Your task to perform on an android device: uninstall "Adobe Acrobat Reader" Image 0: 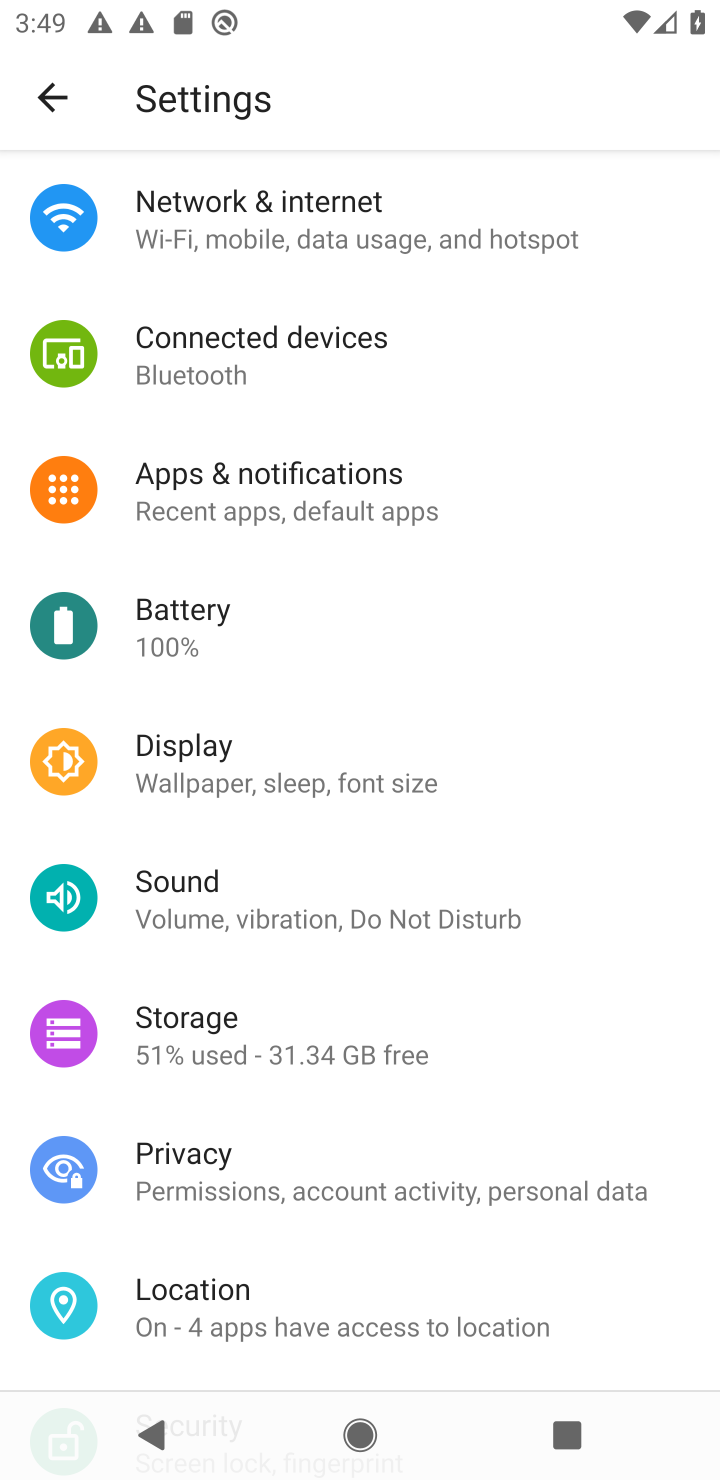
Step 0: press home button
Your task to perform on an android device: uninstall "Adobe Acrobat Reader" Image 1: 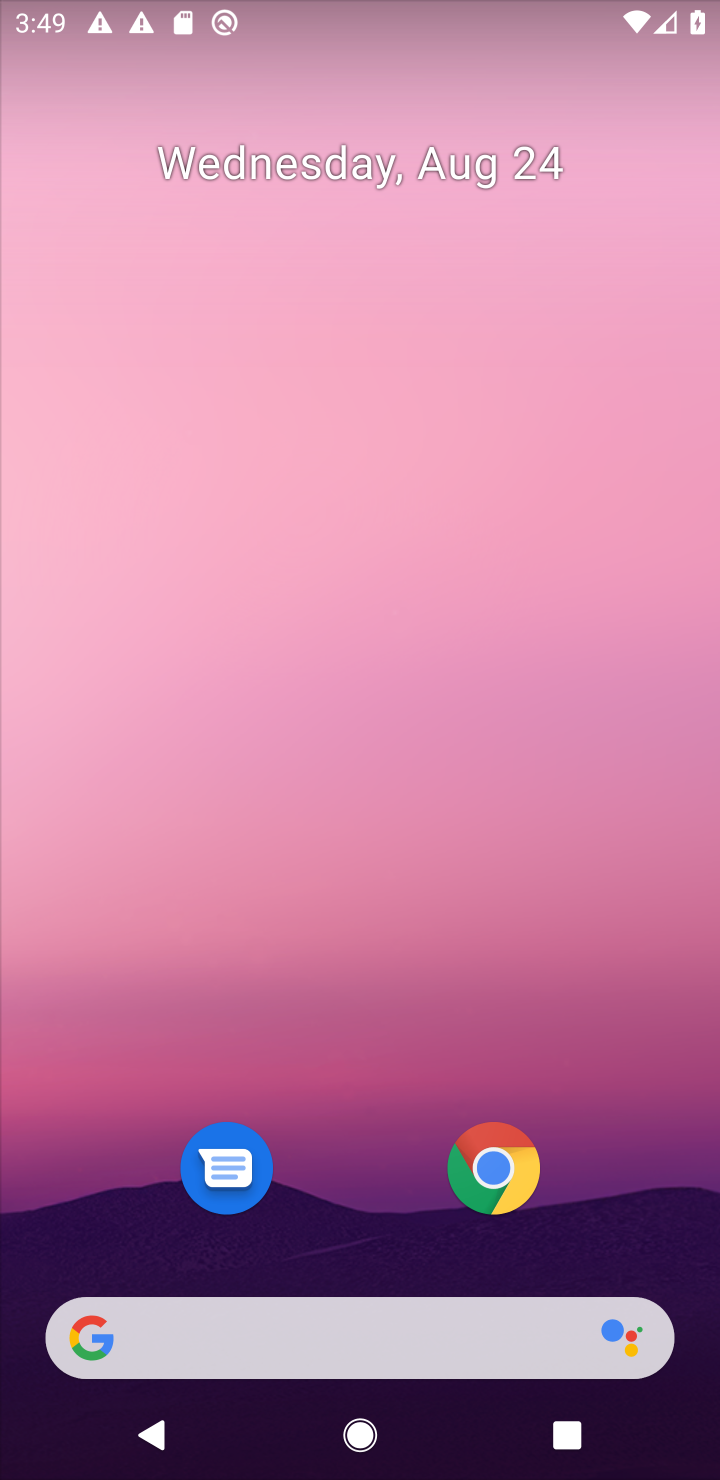
Step 1: drag from (622, 843) to (577, 174)
Your task to perform on an android device: uninstall "Adobe Acrobat Reader" Image 2: 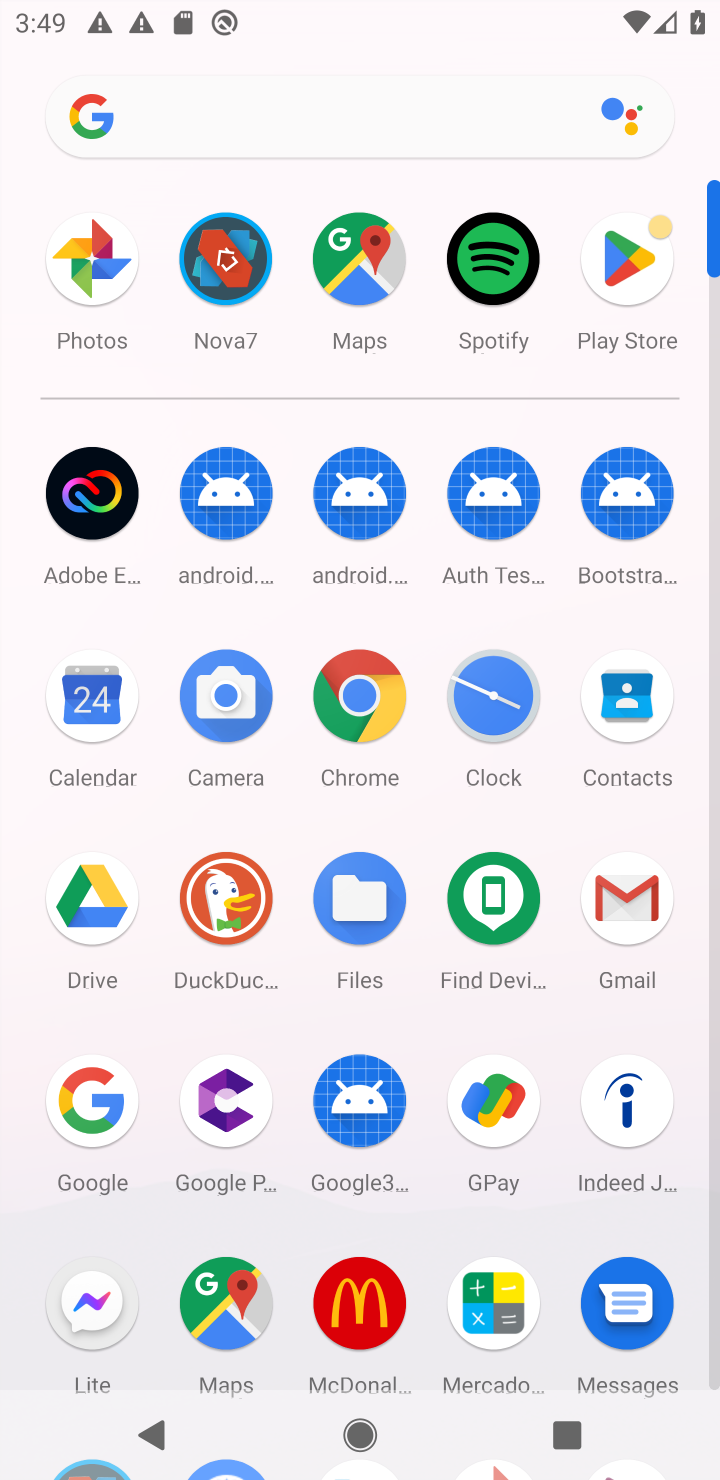
Step 2: click (622, 263)
Your task to perform on an android device: uninstall "Adobe Acrobat Reader" Image 3: 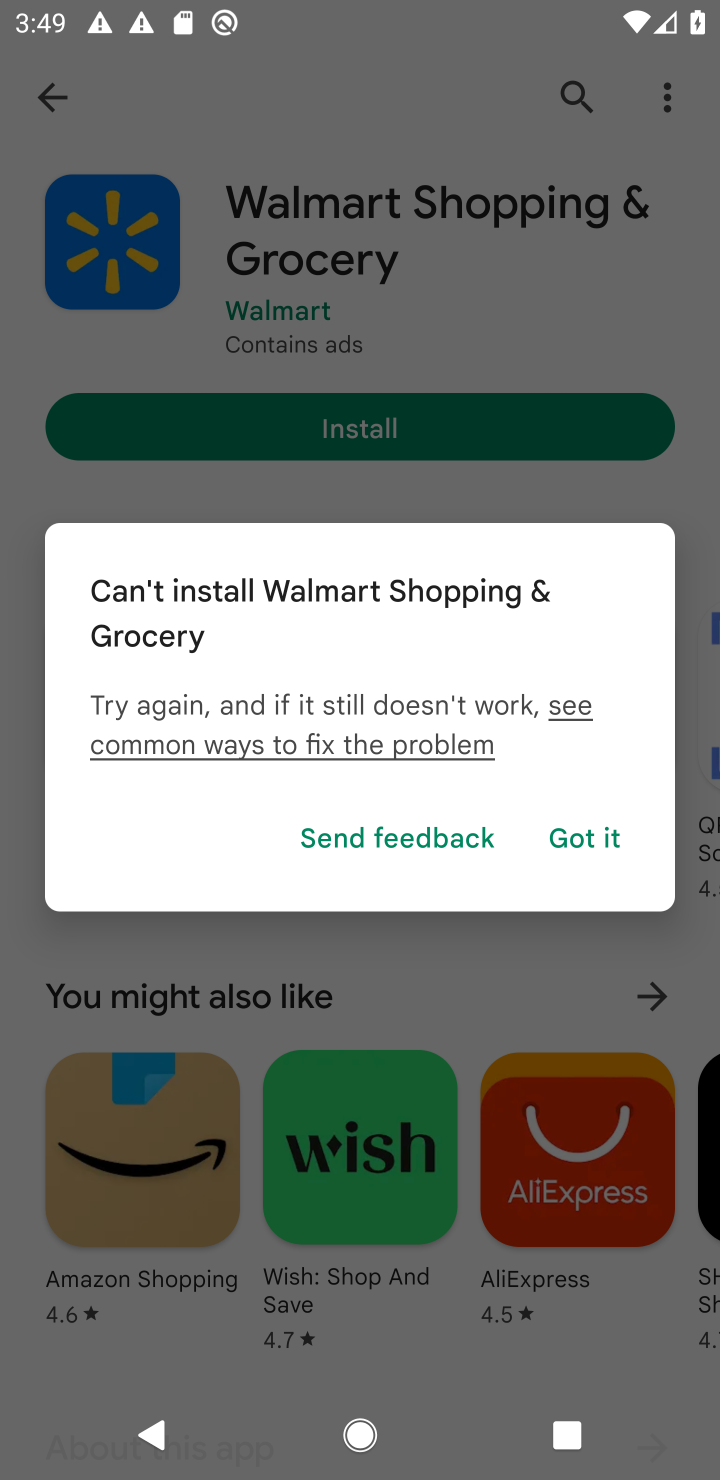
Step 3: click (597, 837)
Your task to perform on an android device: uninstall "Adobe Acrobat Reader" Image 4: 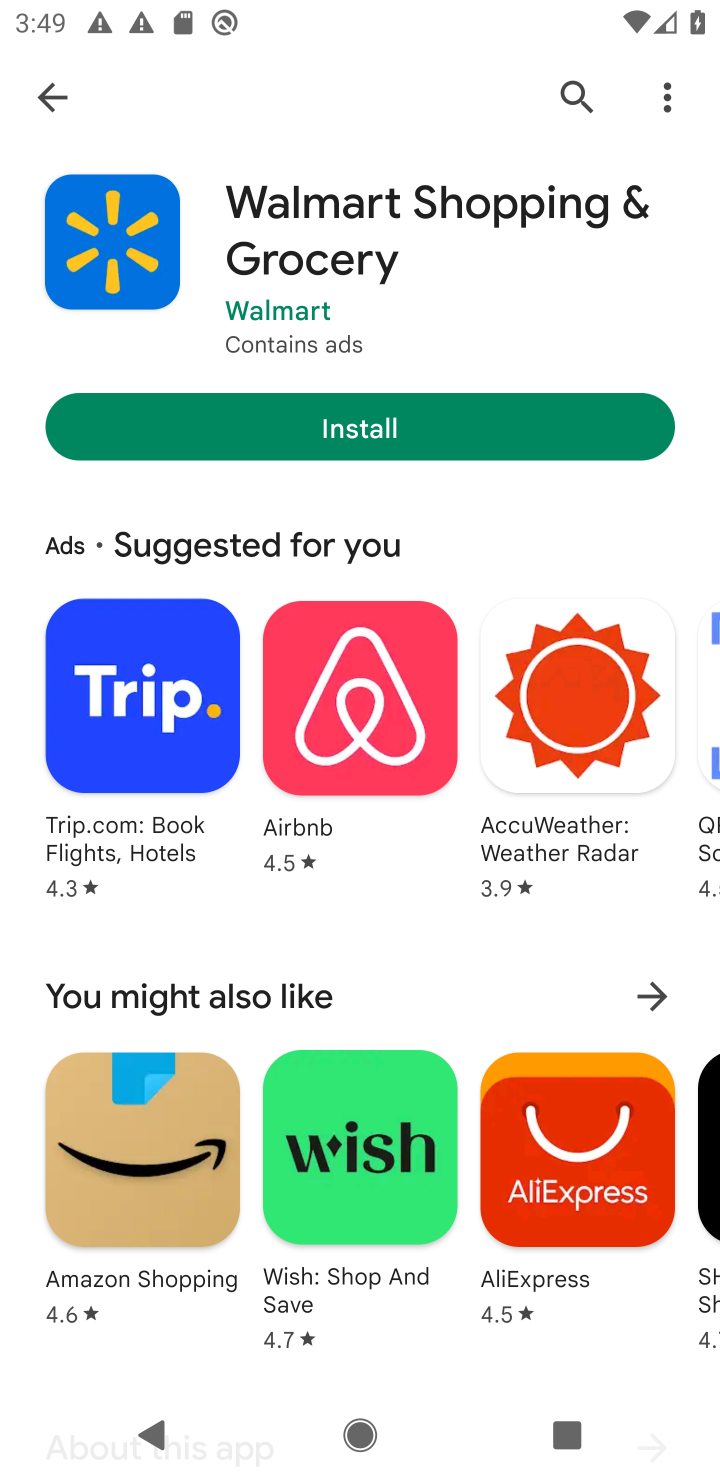
Step 4: click (576, 92)
Your task to perform on an android device: uninstall "Adobe Acrobat Reader" Image 5: 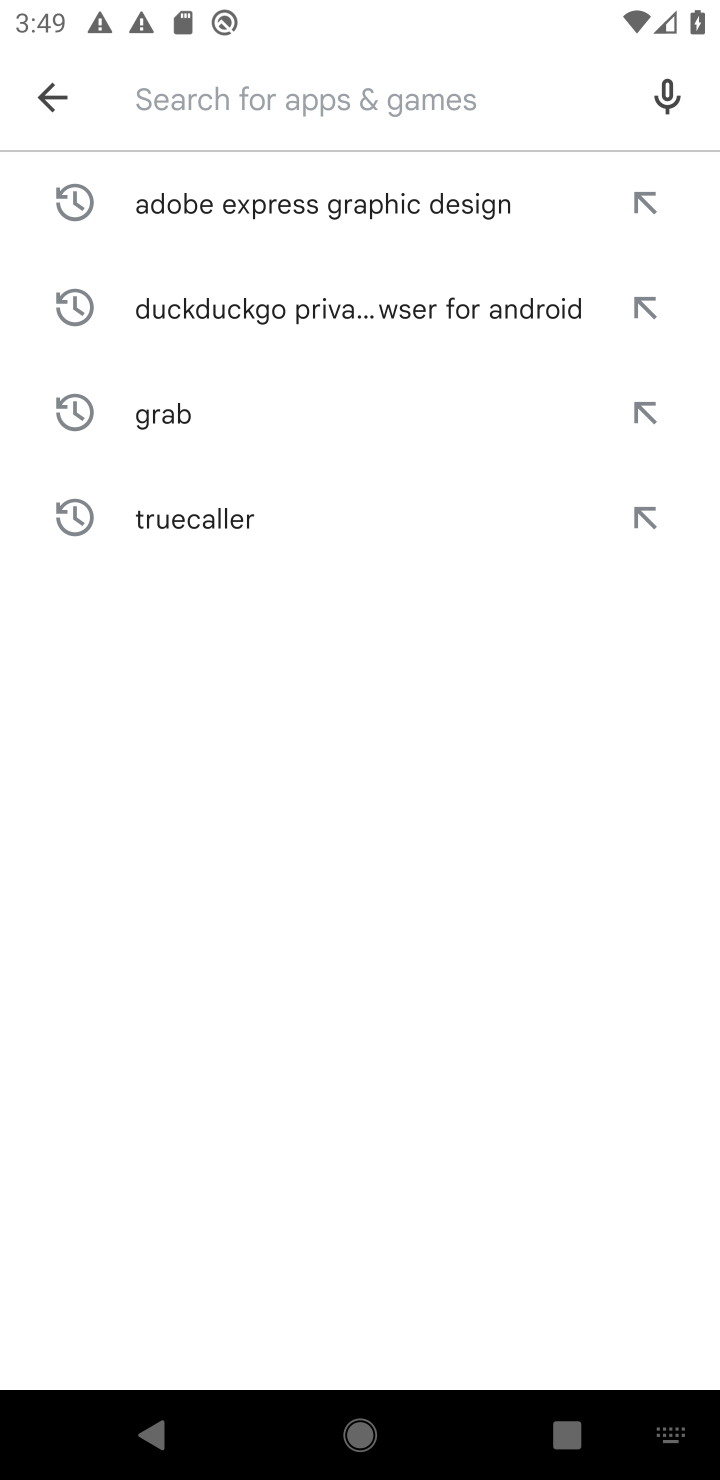
Step 5: type "Adobe Acrobat Reader"
Your task to perform on an android device: uninstall "Adobe Acrobat Reader" Image 6: 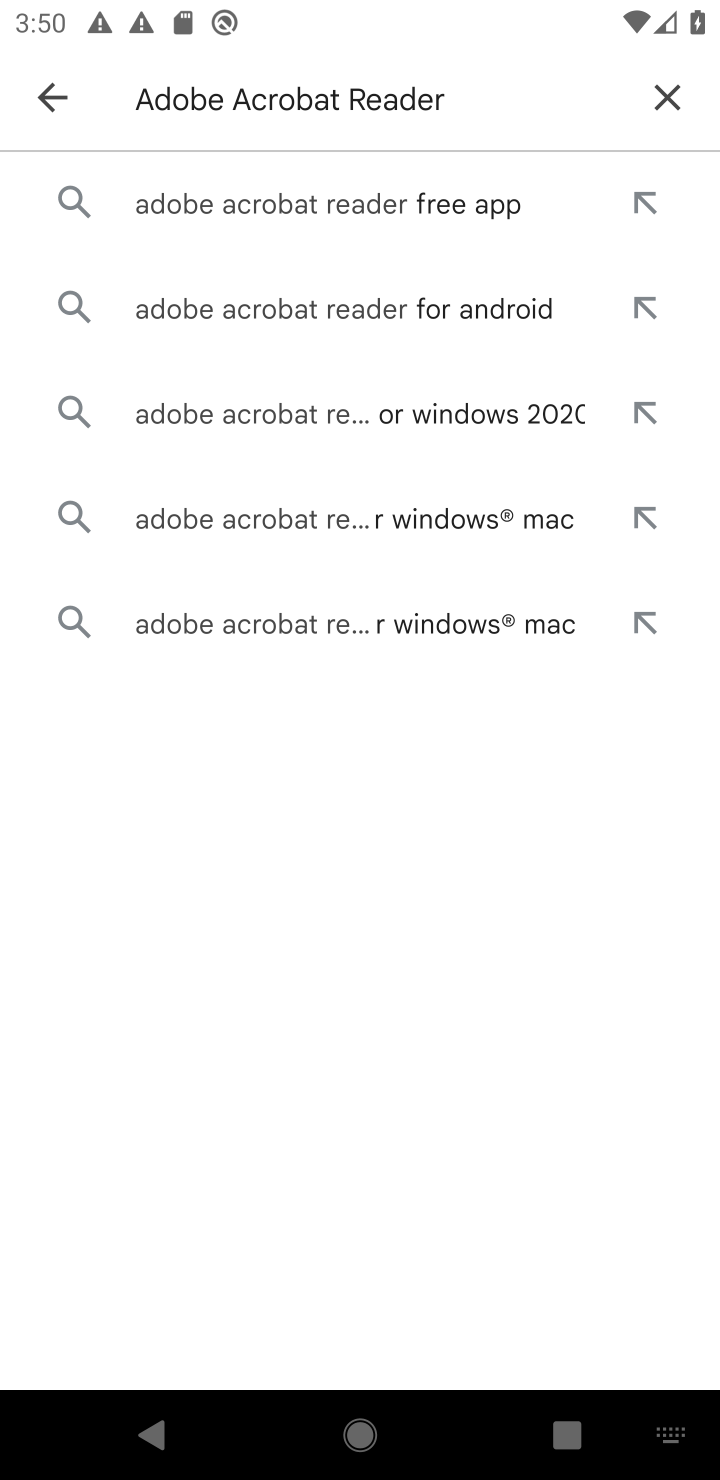
Step 6: click (268, 206)
Your task to perform on an android device: uninstall "Adobe Acrobat Reader" Image 7: 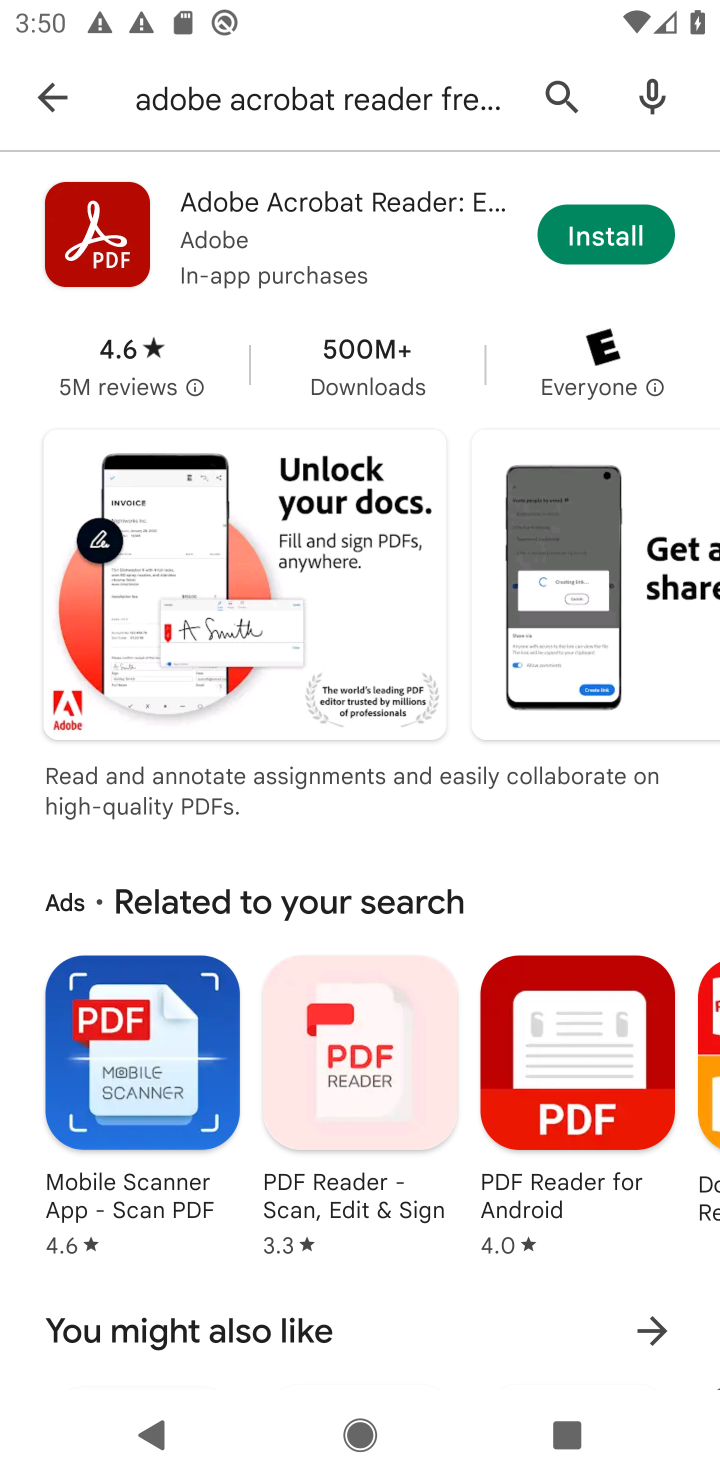
Step 7: click (268, 206)
Your task to perform on an android device: uninstall "Adobe Acrobat Reader" Image 8: 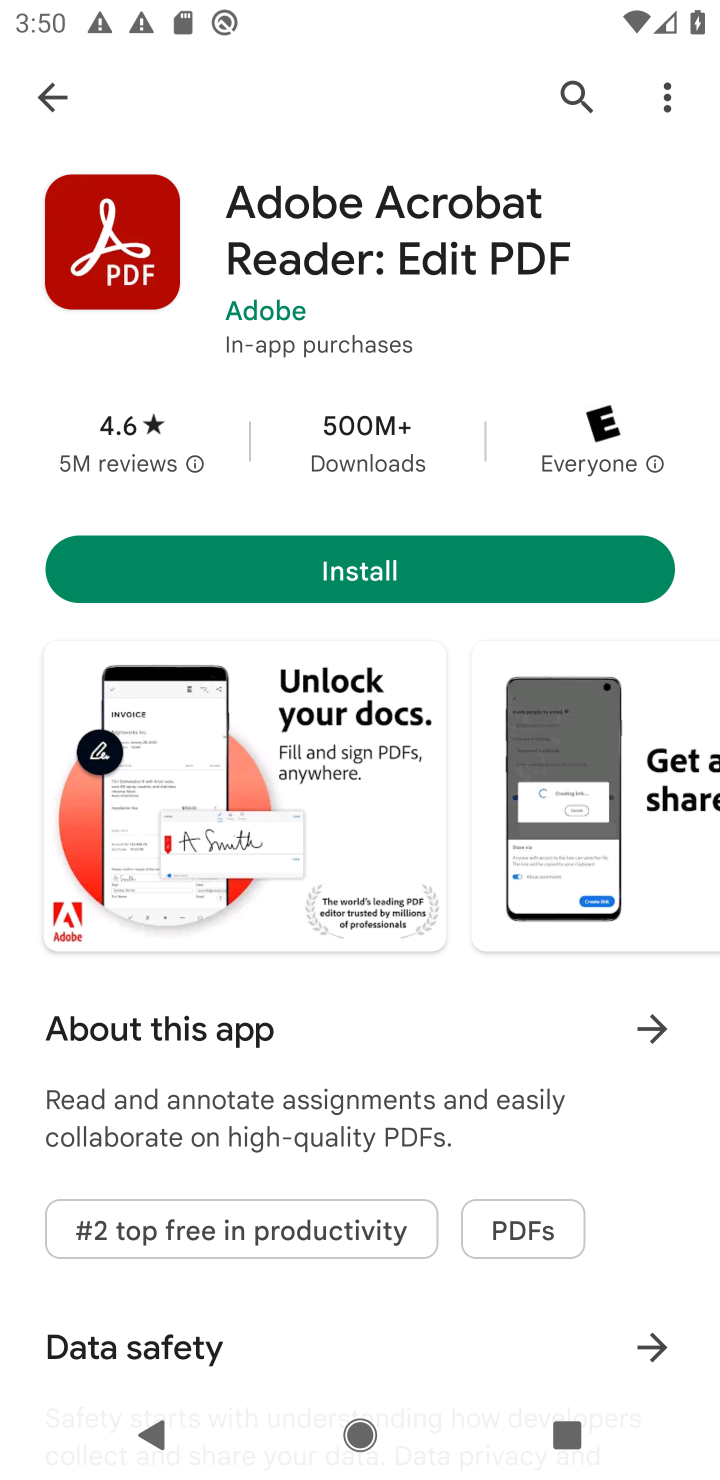
Step 8: task complete